Your task to perform on an android device: empty trash in google photos Image 0: 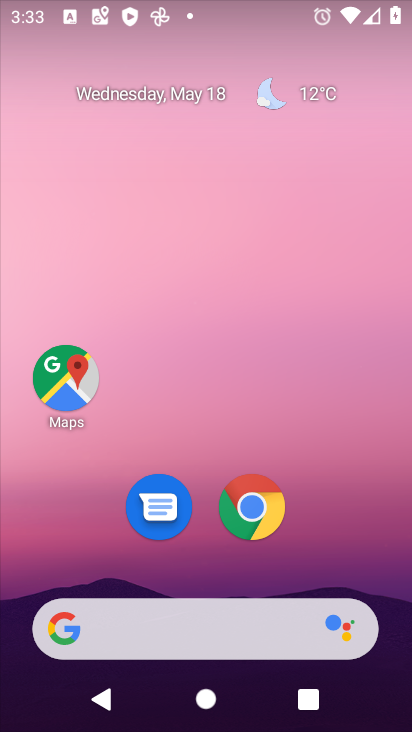
Step 0: drag from (404, 616) to (315, 105)
Your task to perform on an android device: empty trash in google photos Image 1: 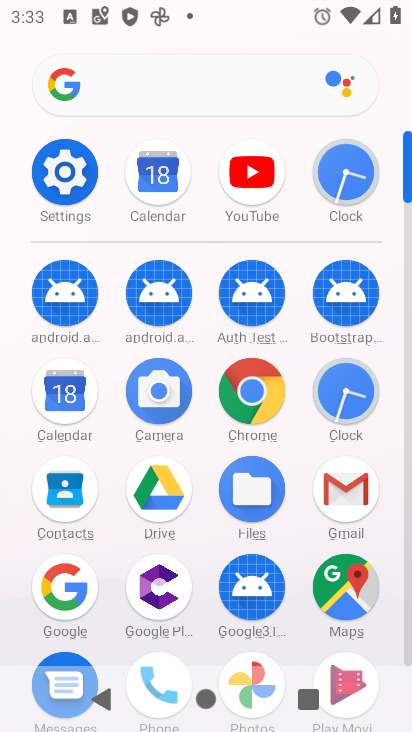
Step 1: click (409, 649)
Your task to perform on an android device: empty trash in google photos Image 2: 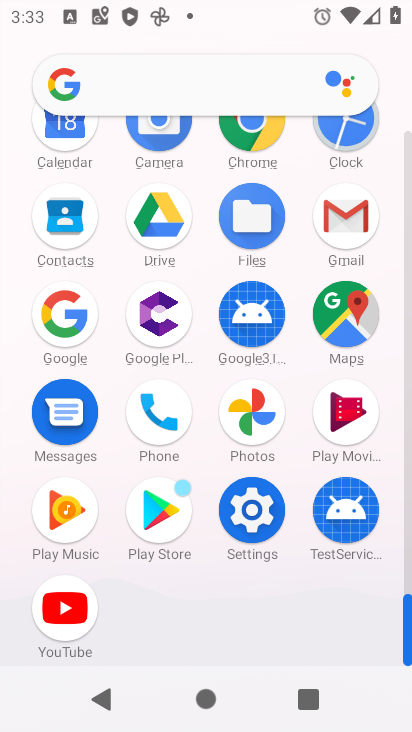
Step 2: click (251, 411)
Your task to perform on an android device: empty trash in google photos Image 3: 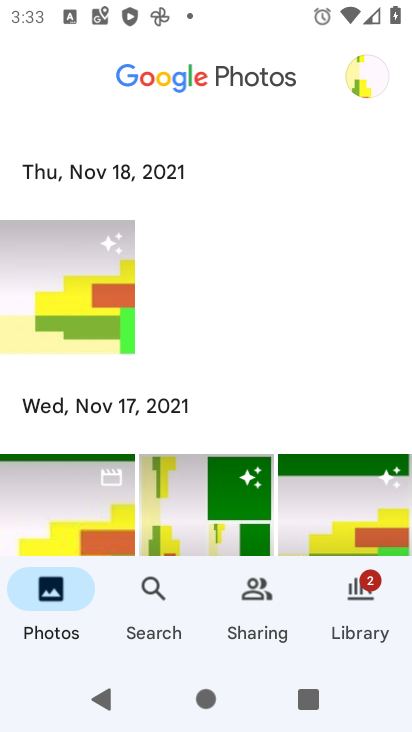
Step 3: click (360, 591)
Your task to perform on an android device: empty trash in google photos Image 4: 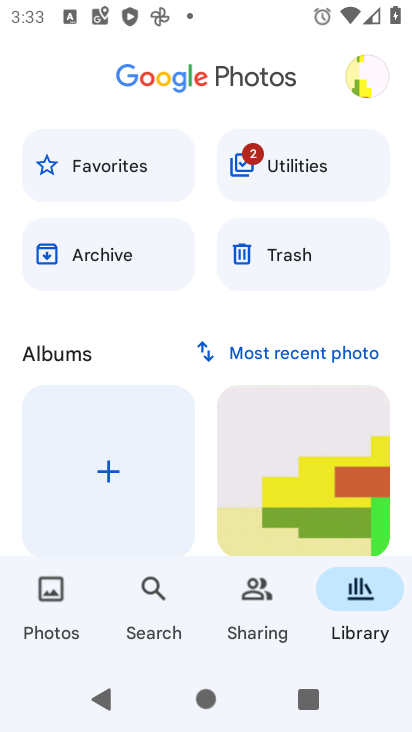
Step 4: click (266, 247)
Your task to perform on an android device: empty trash in google photos Image 5: 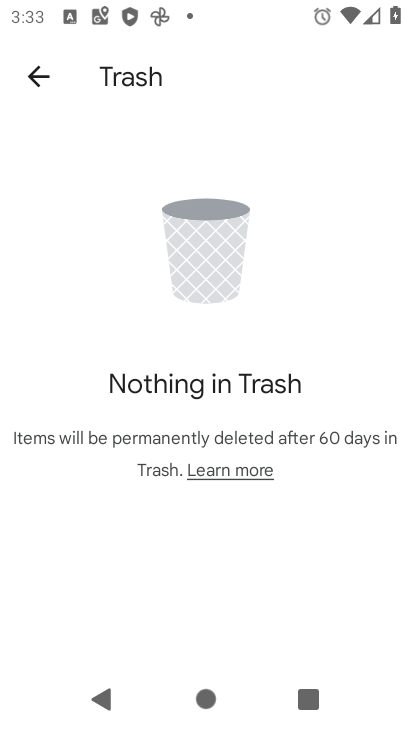
Step 5: task complete